Your task to perform on an android device: Clear the cart on ebay. Search for "lg ultragear" on ebay, select the first entry, add it to the cart, then select checkout. Image 0: 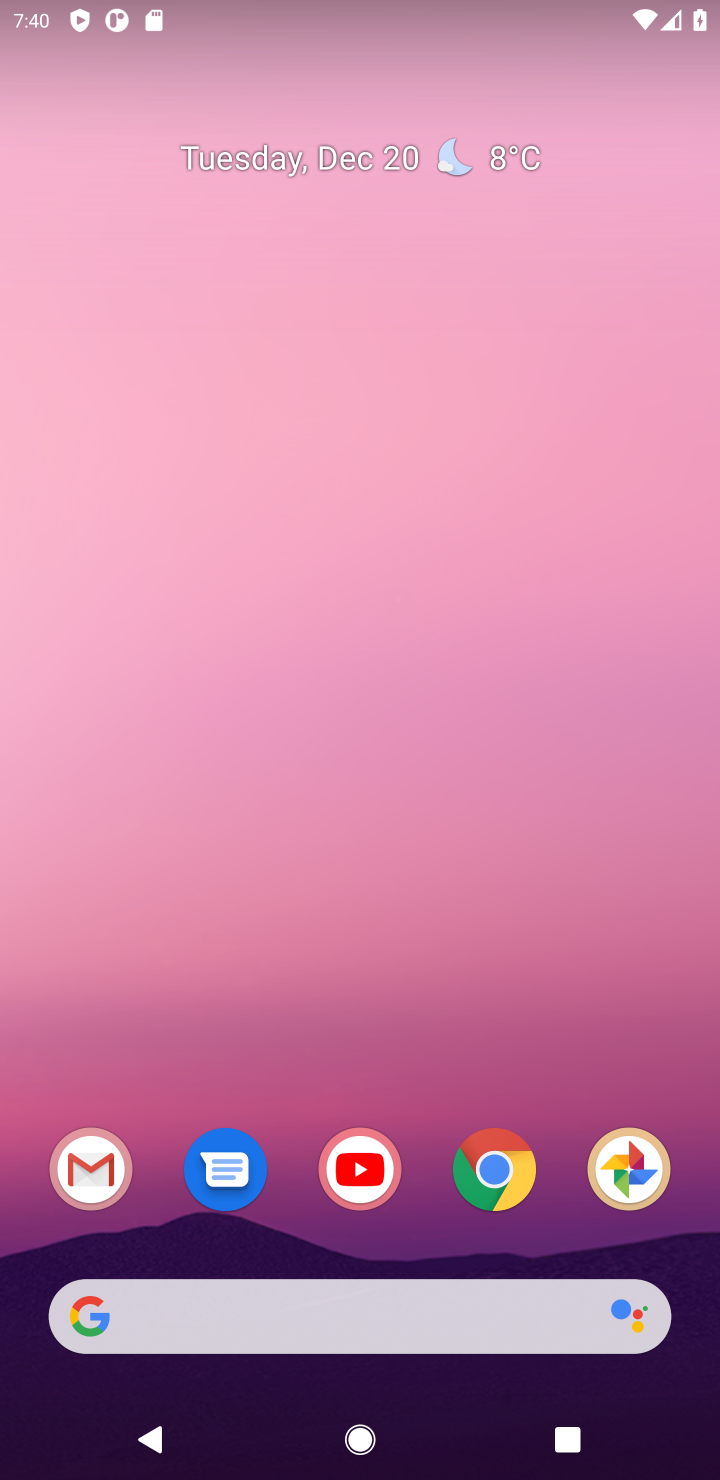
Step 0: click (468, 1173)
Your task to perform on an android device: Clear the cart on ebay. Search for "lg ultragear" on ebay, select the first entry, add it to the cart, then select checkout. Image 1: 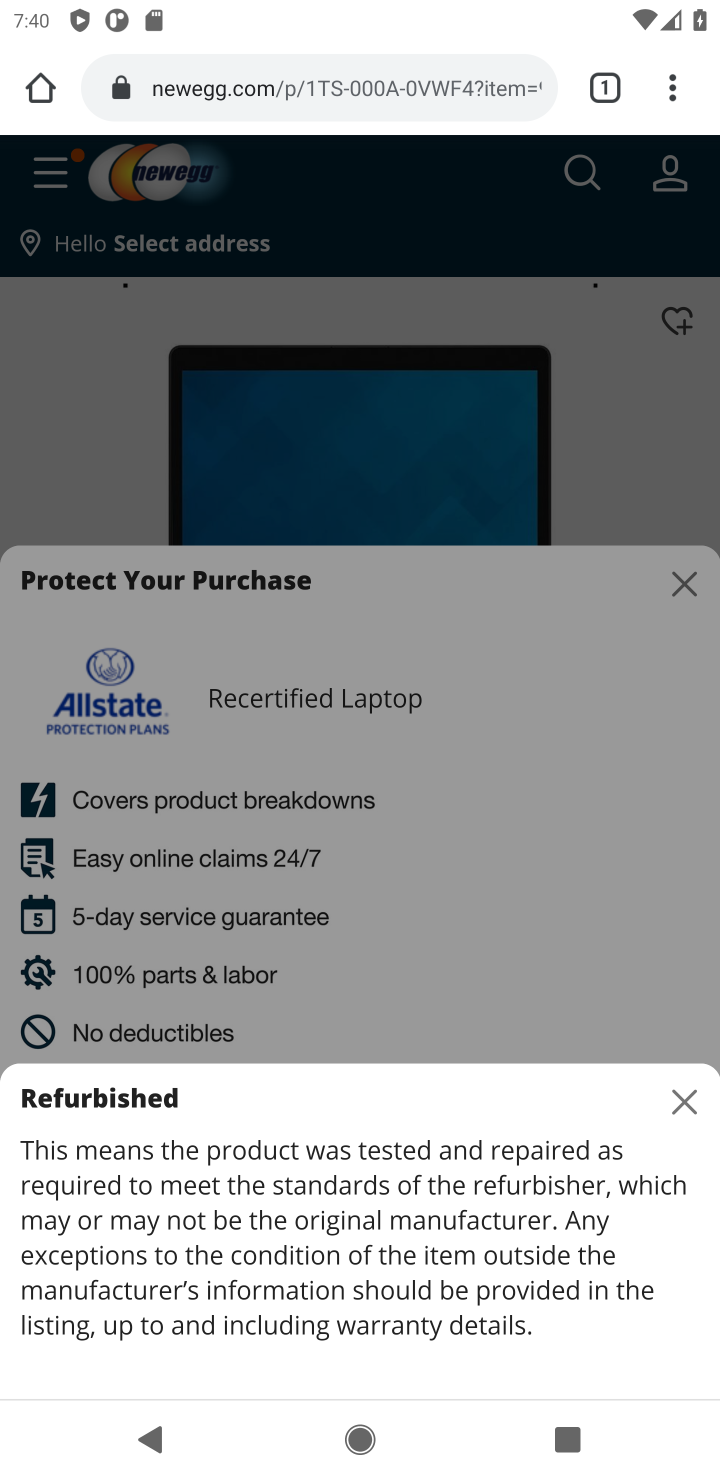
Step 1: press home button
Your task to perform on an android device: Clear the cart on ebay. Search for "lg ultragear" on ebay, select the first entry, add it to the cart, then select checkout. Image 2: 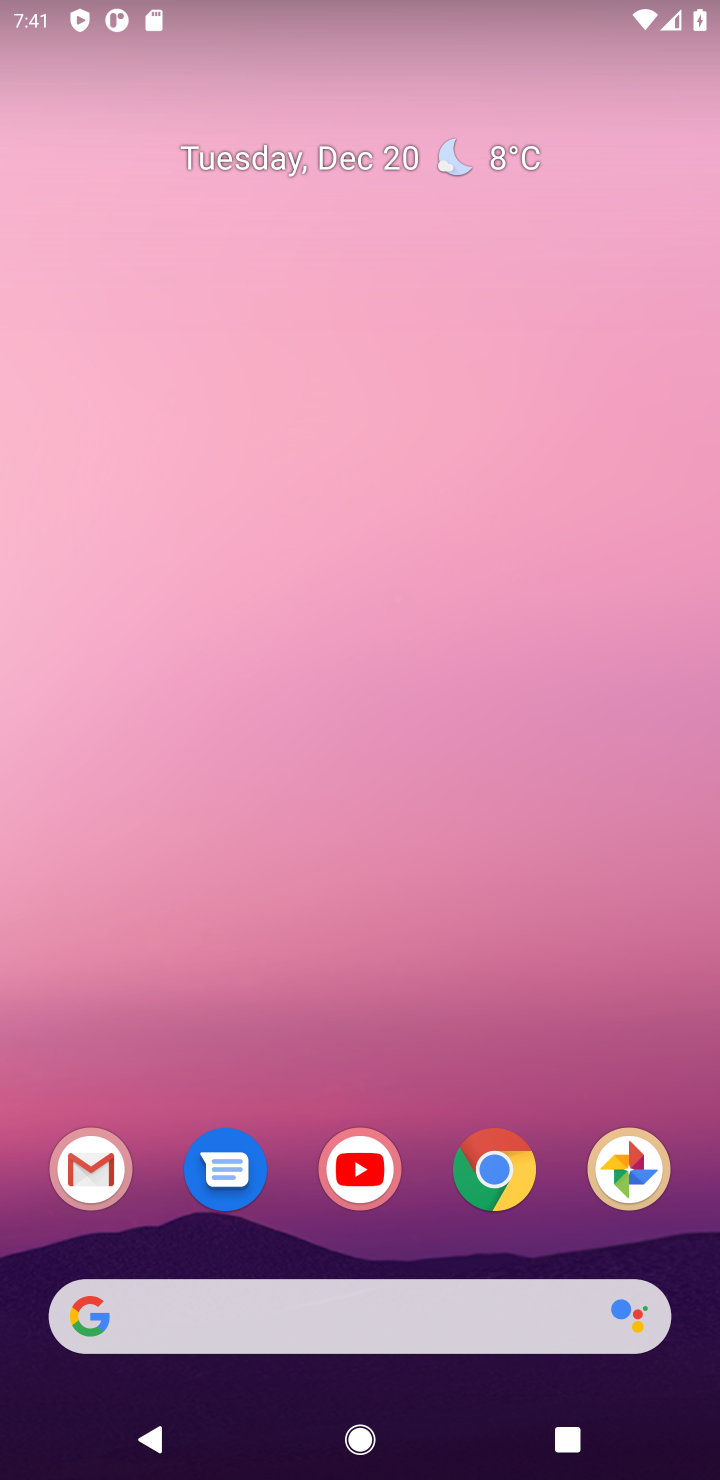
Step 2: click (519, 1155)
Your task to perform on an android device: Clear the cart on ebay. Search for "lg ultragear" on ebay, select the first entry, add it to the cart, then select checkout. Image 3: 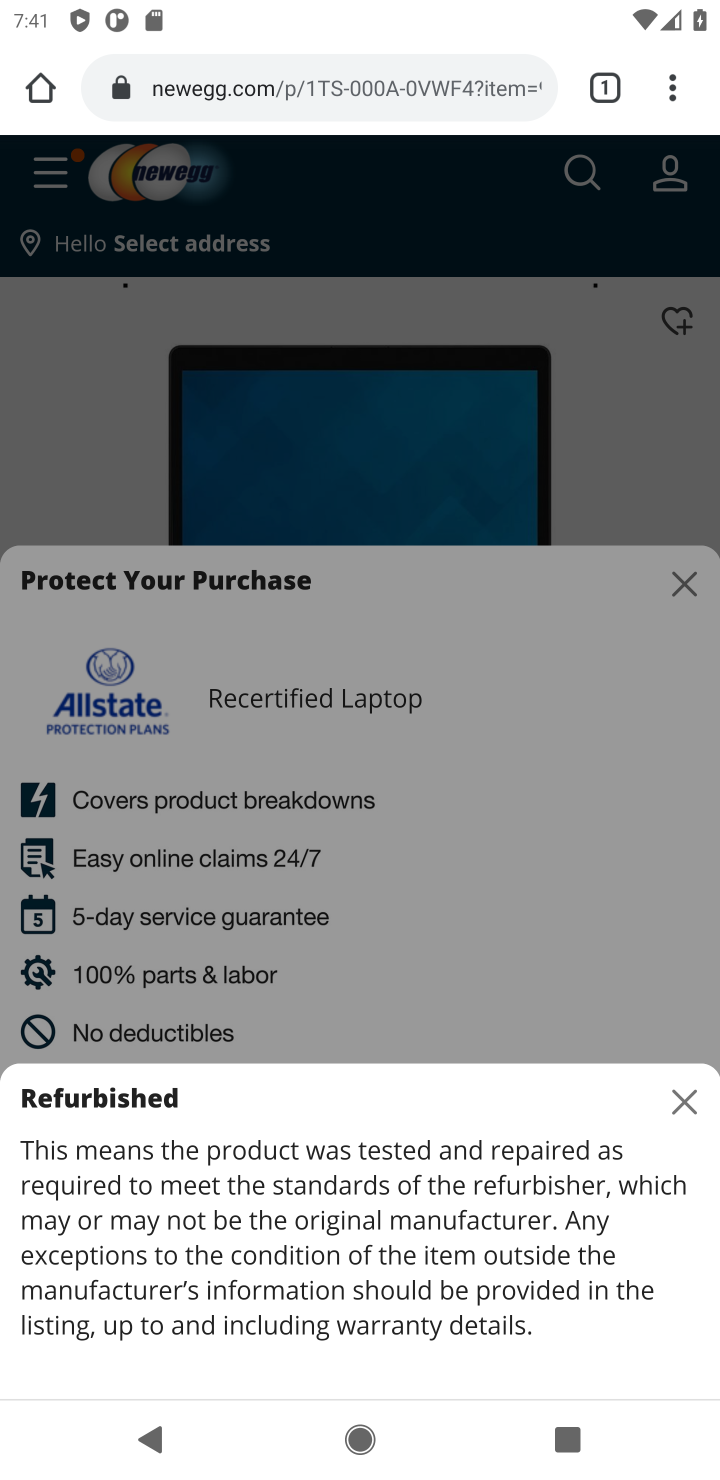
Step 3: click (425, 99)
Your task to perform on an android device: Clear the cart on ebay. Search for "lg ultragear" on ebay, select the first entry, add it to the cart, then select checkout. Image 4: 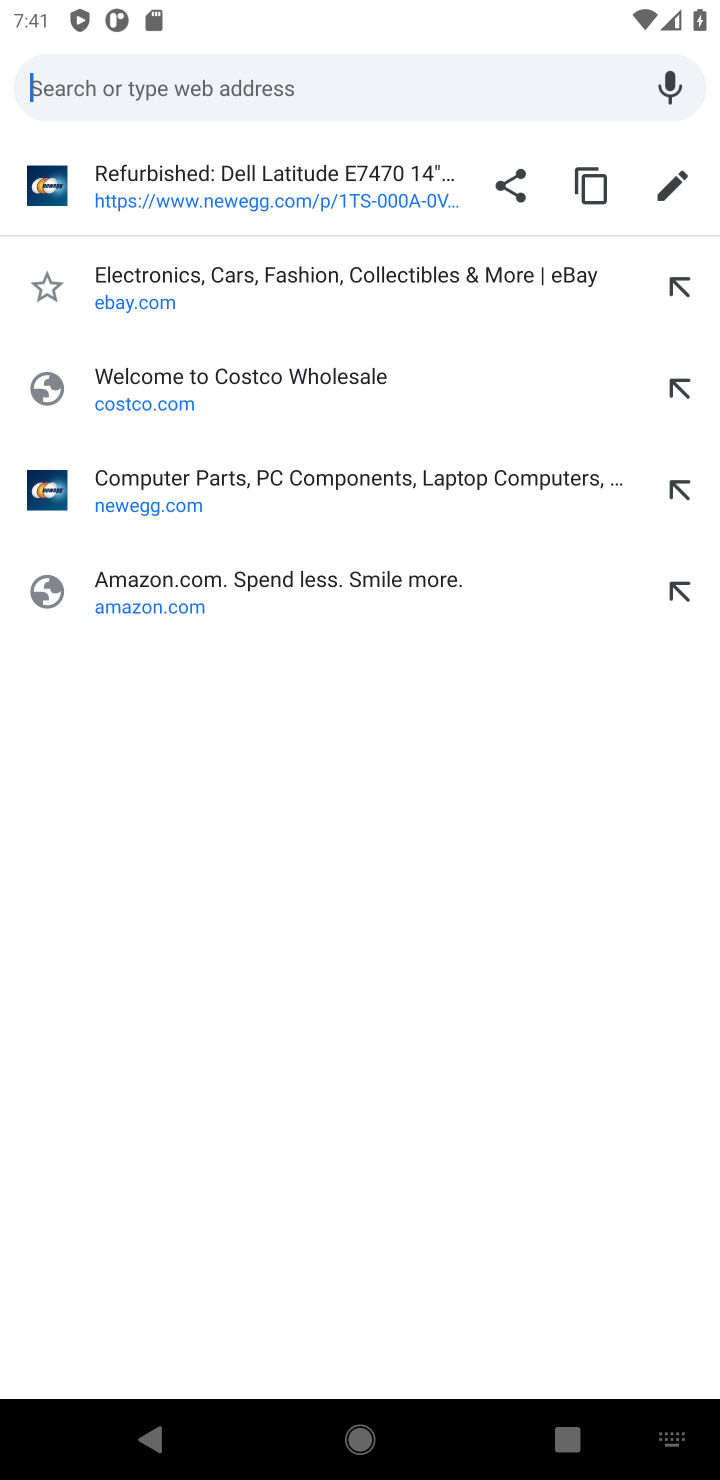
Step 4: click (162, 289)
Your task to perform on an android device: Clear the cart on ebay. Search for "lg ultragear" on ebay, select the first entry, add it to the cart, then select checkout. Image 5: 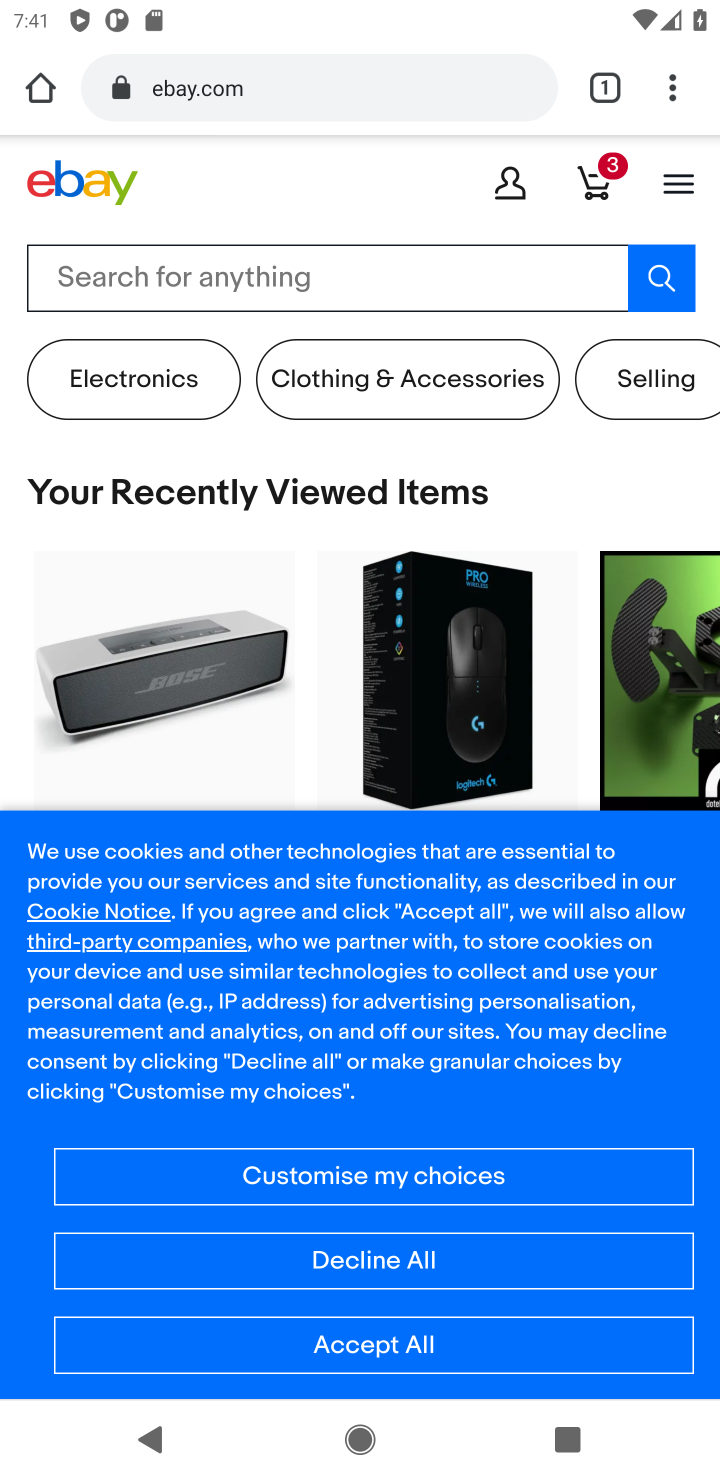
Step 5: click (212, 265)
Your task to perform on an android device: Clear the cart on ebay. Search for "lg ultragear" on ebay, select the first entry, add it to the cart, then select checkout. Image 6: 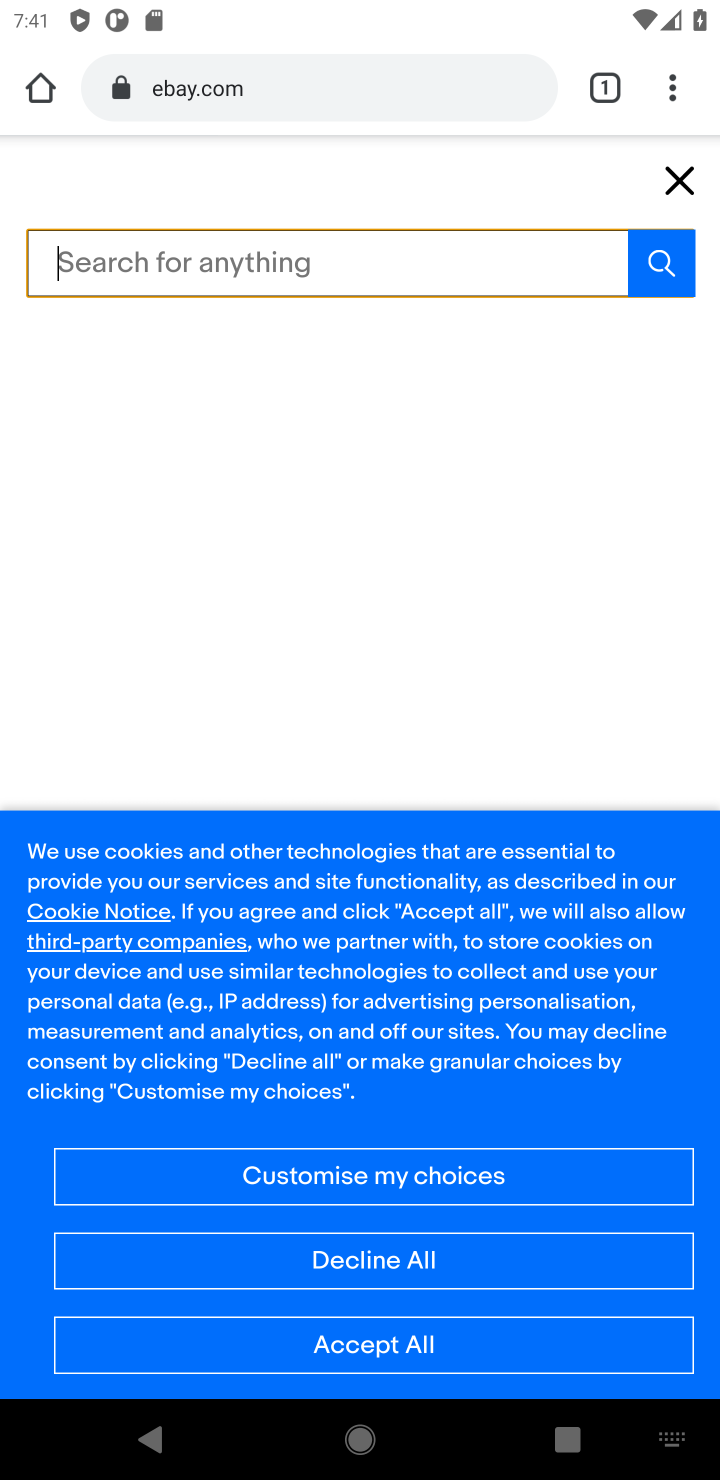
Step 6: click (398, 1349)
Your task to perform on an android device: Clear the cart on ebay. Search for "lg ultragear" on ebay, select the first entry, add it to the cart, then select checkout. Image 7: 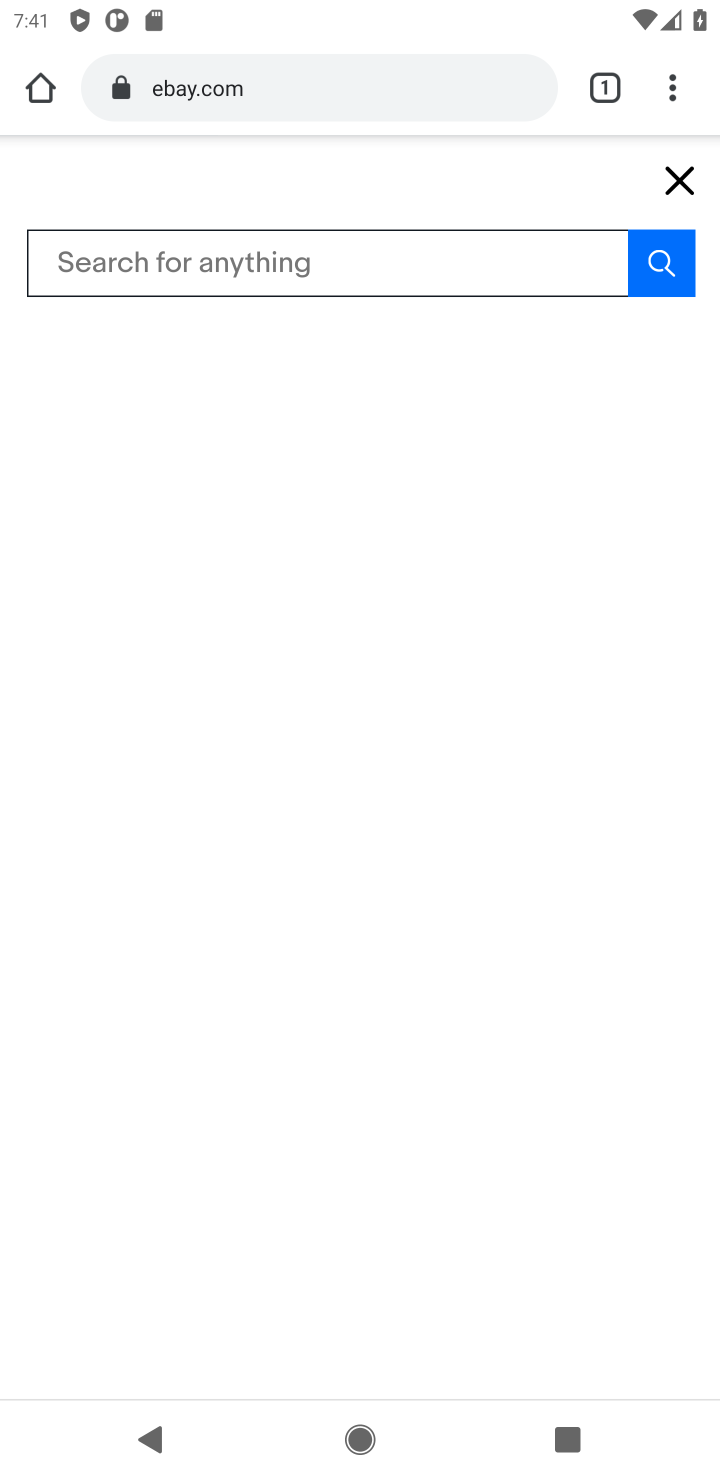
Step 7: click (323, 253)
Your task to perform on an android device: Clear the cart on ebay. Search for "lg ultragear" on ebay, select the first entry, add it to the cart, then select checkout. Image 8: 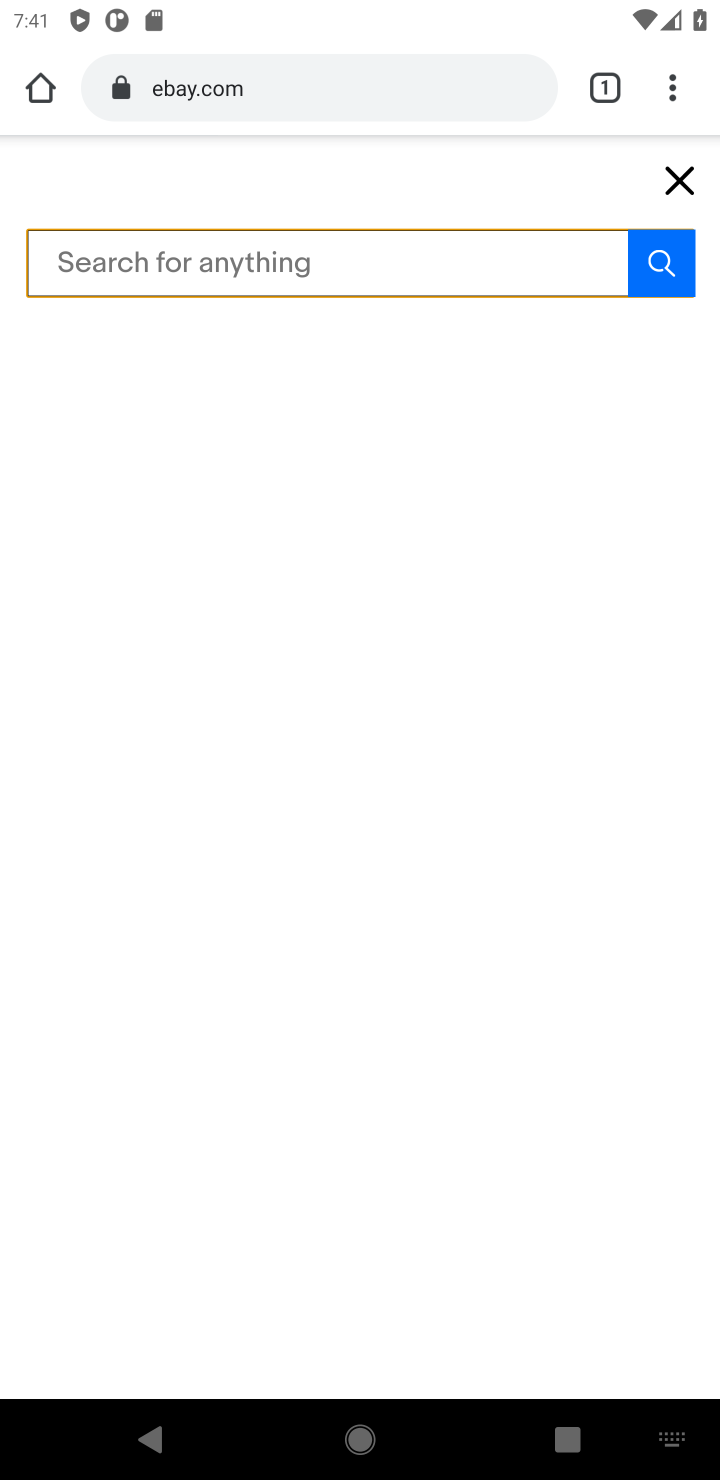
Step 8: type "lg ultragear "
Your task to perform on an android device: Clear the cart on ebay. Search for "lg ultragear" on ebay, select the first entry, add it to the cart, then select checkout. Image 9: 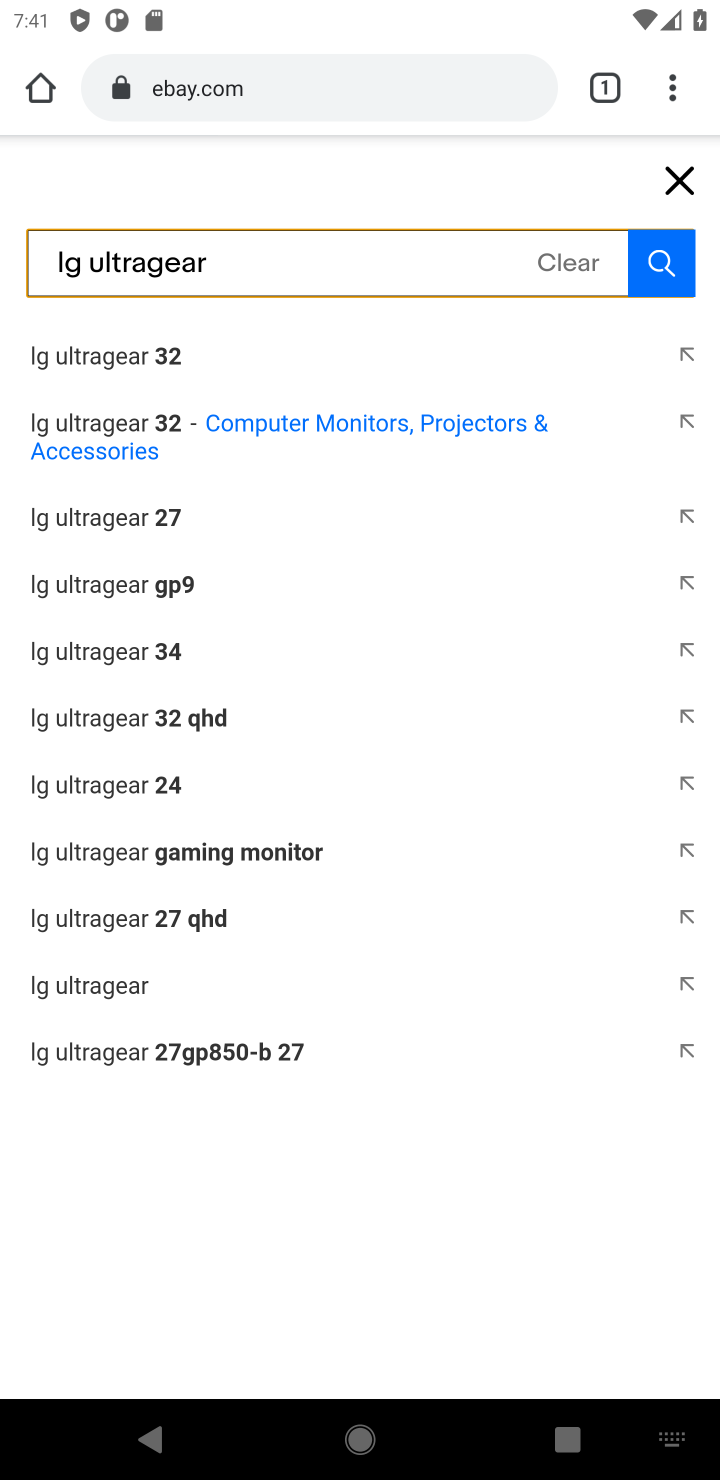
Step 9: click (638, 274)
Your task to perform on an android device: Clear the cart on ebay. Search for "lg ultragear" on ebay, select the first entry, add it to the cart, then select checkout. Image 10: 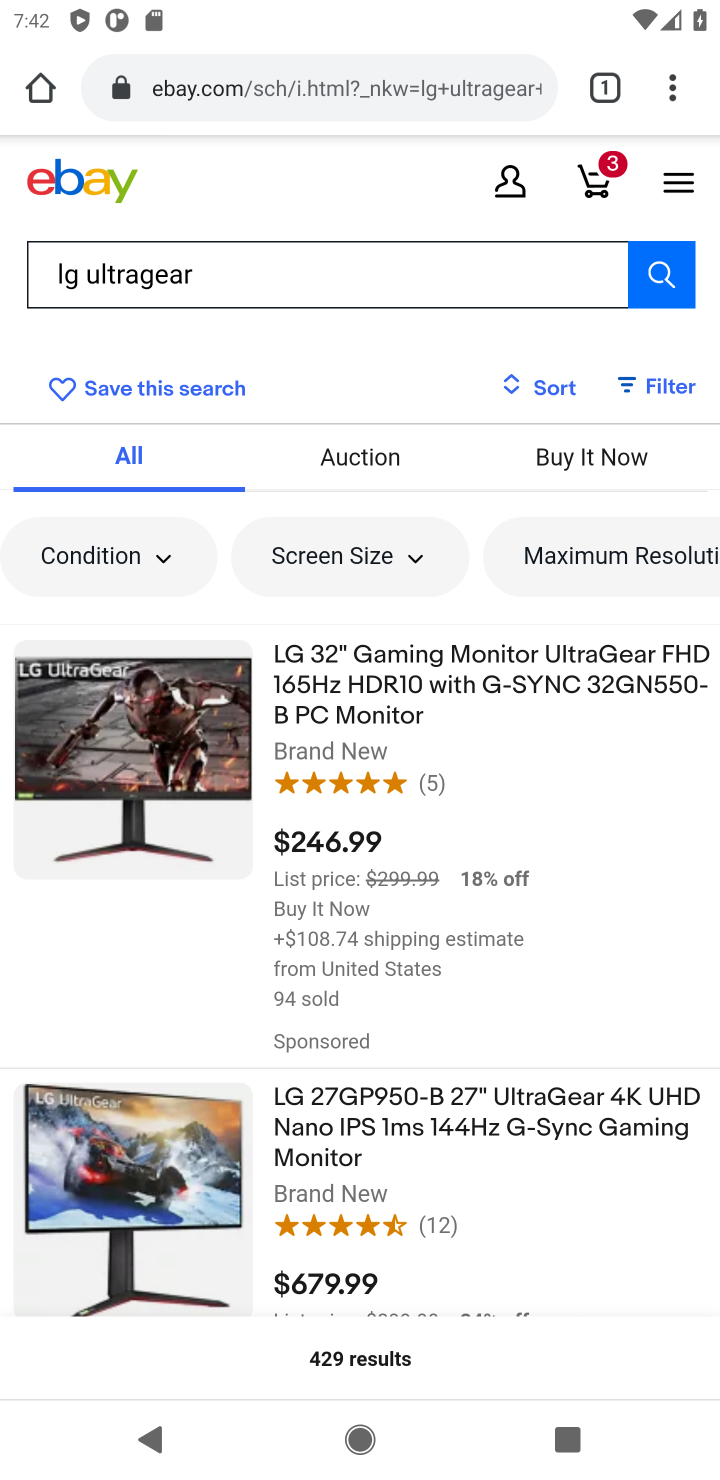
Step 10: click (452, 683)
Your task to perform on an android device: Clear the cart on ebay. Search for "lg ultragear" on ebay, select the first entry, add it to the cart, then select checkout. Image 11: 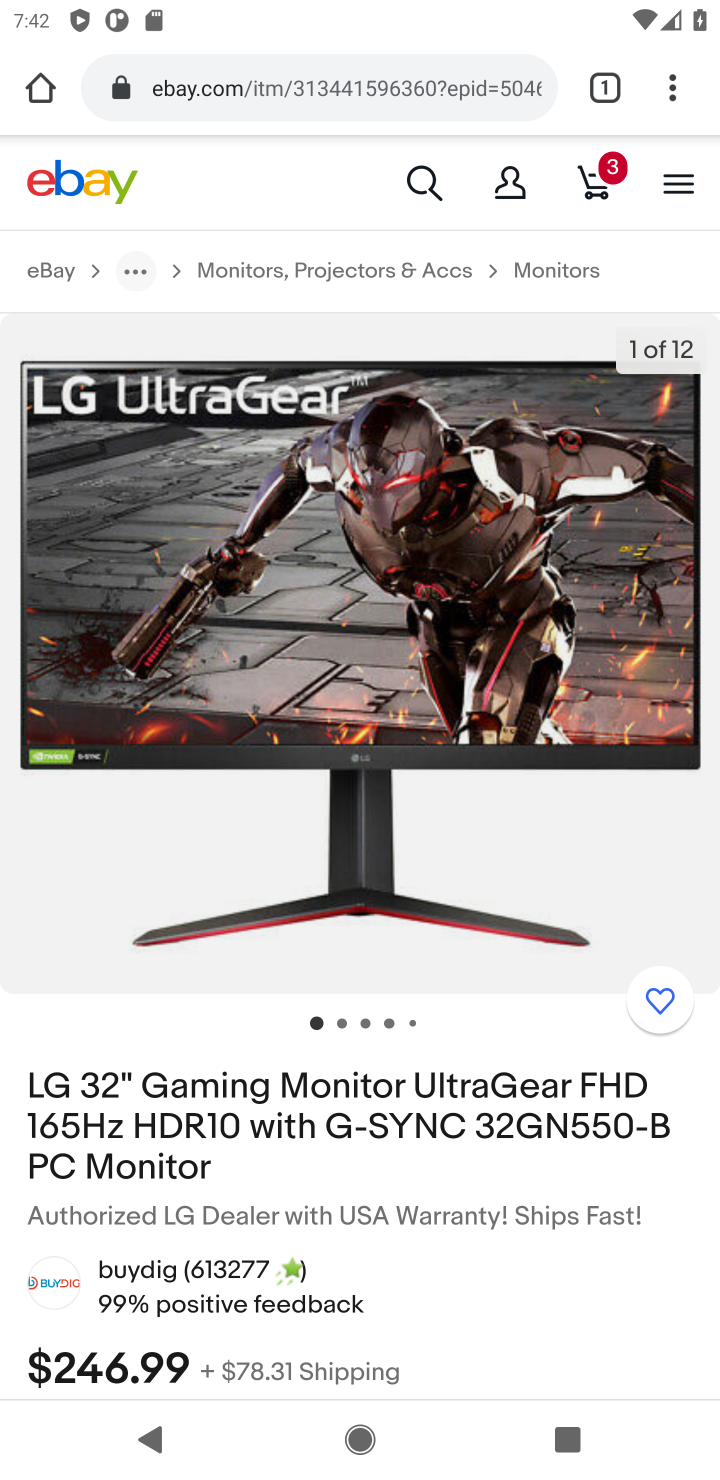
Step 11: drag from (491, 1302) to (415, 562)
Your task to perform on an android device: Clear the cart on ebay. Search for "lg ultragear" on ebay, select the first entry, add it to the cart, then select checkout. Image 12: 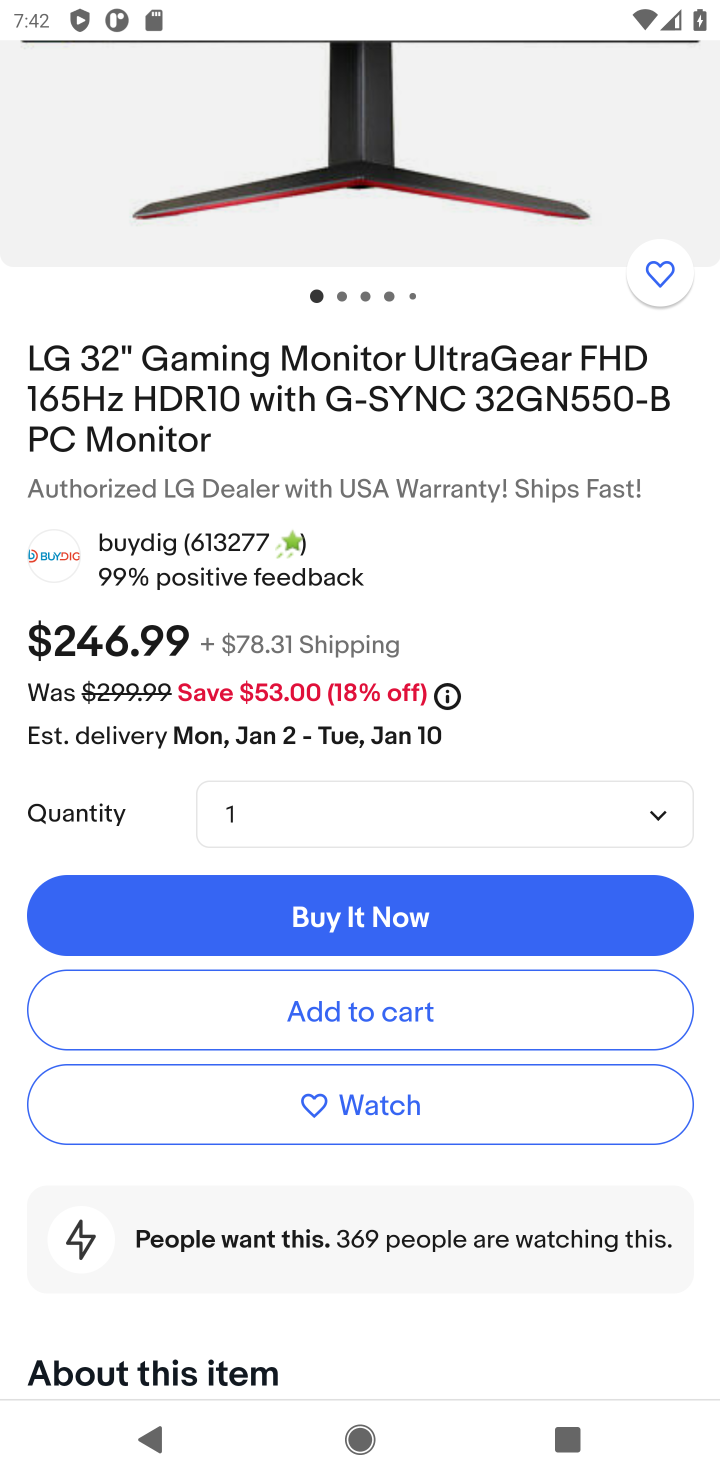
Step 12: click (365, 1017)
Your task to perform on an android device: Clear the cart on ebay. Search for "lg ultragear" on ebay, select the first entry, add it to the cart, then select checkout. Image 13: 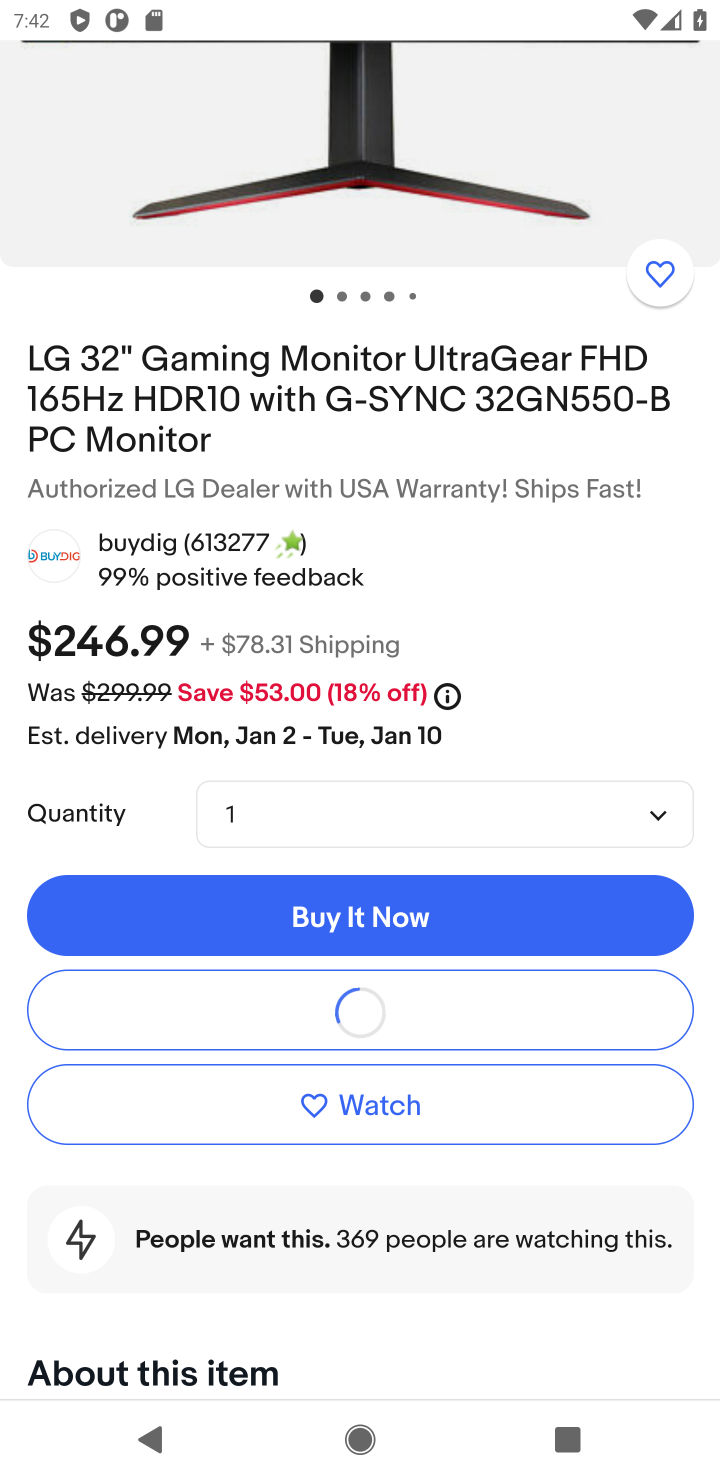
Step 13: task complete